Your task to perform on an android device: check android version Image 0: 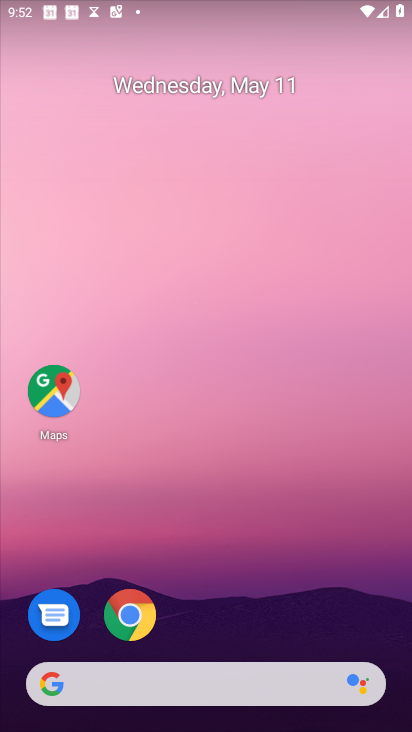
Step 0: drag from (263, 632) to (265, 198)
Your task to perform on an android device: check android version Image 1: 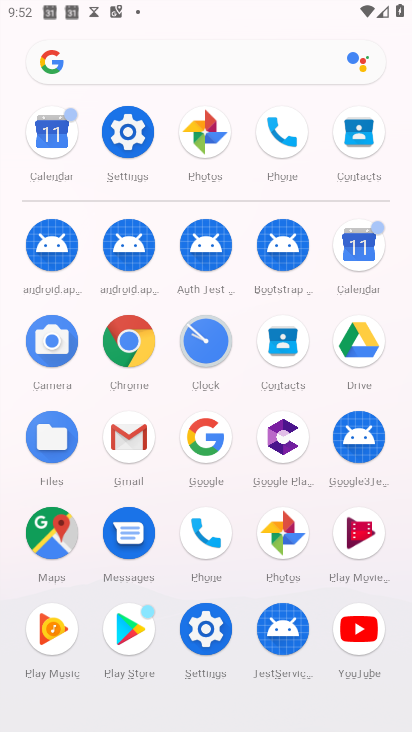
Step 1: click (117, 126)
Your task to perform on an android device: check android version Image 2: 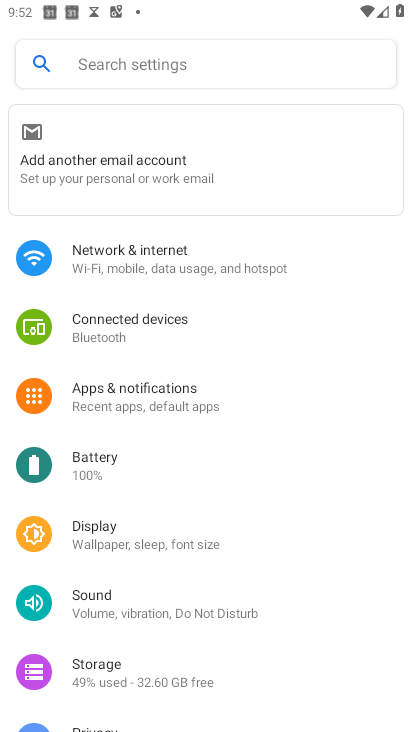
Step 2: drag from (189, 510) to (211, 93)
Your task to perform on an android device: check android version Image 3: 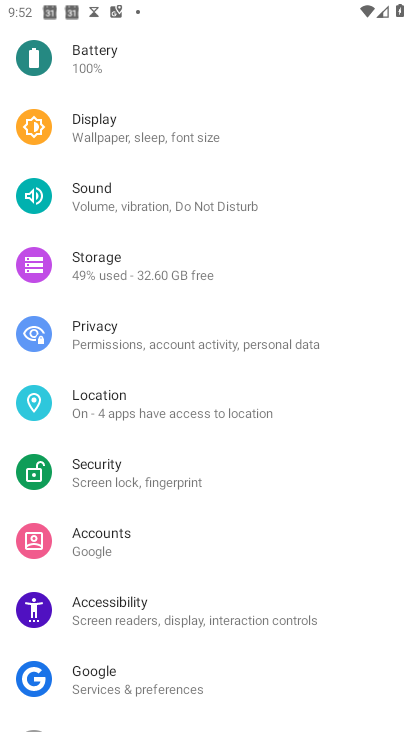
Step 3: drag from (237, 598) to (224, 217)
Your task to perform on an android device: check android version Image 4: 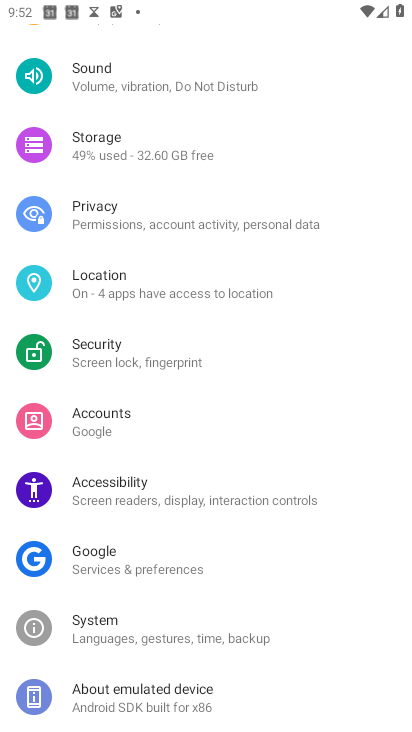
Step 4: click (177, 716)
Your task to perform on an android device: check android version Image 5: 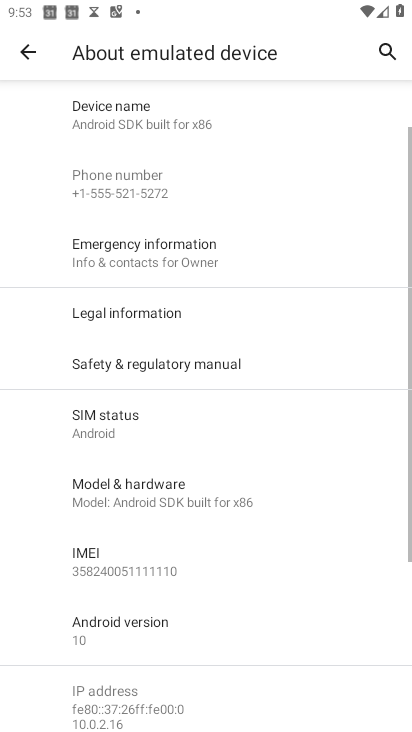
Step 5: click (189, 631)
Your task to perform on an android device: check android version Image 6: 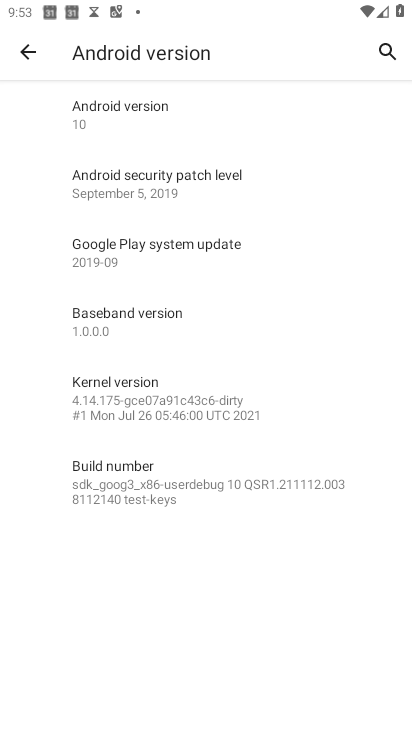
Step 6: task complete